Your task to perform on an android device: see creations saved in the google photos Image 0: 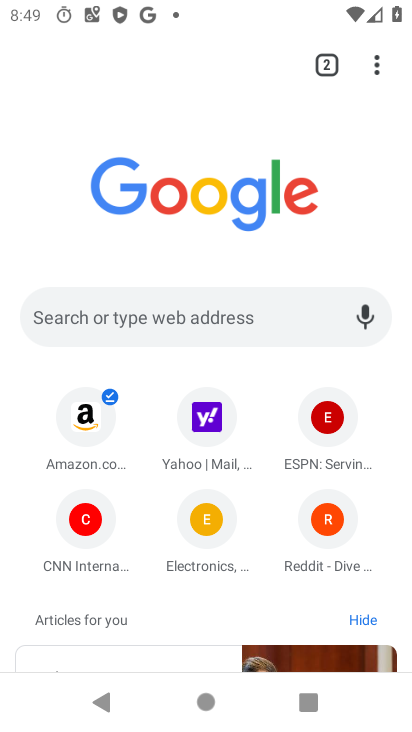
Step 0: press home button
Your task to perform on an android device: see creations saved in the google photos Image 1: 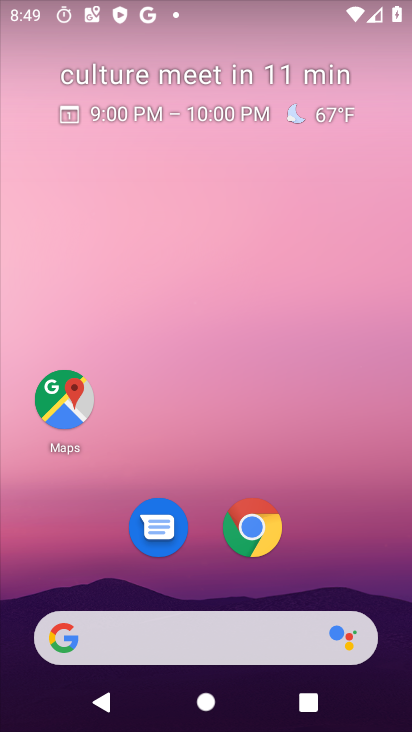
Step 1: drag from (237, 725) to (228, 173)
Your task to perform on an android device: see creations saved in the google photos Image 2: 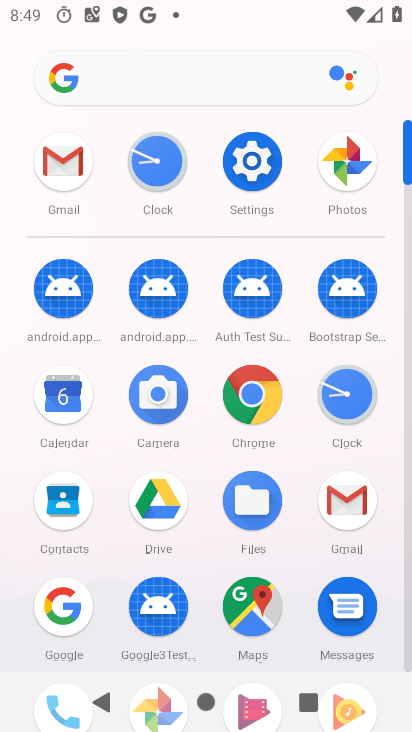
Step 2: drag from (291, 638) to (289, 312)
Your task to perform on an android device: see creations saved in the google photos Image 3: 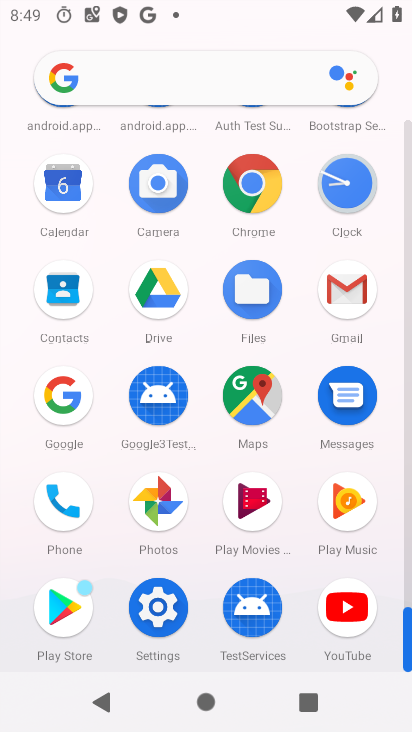
Step 3: click (160, 501)
Your task to perform on an android device: see creations saved in the google photos Image 4: 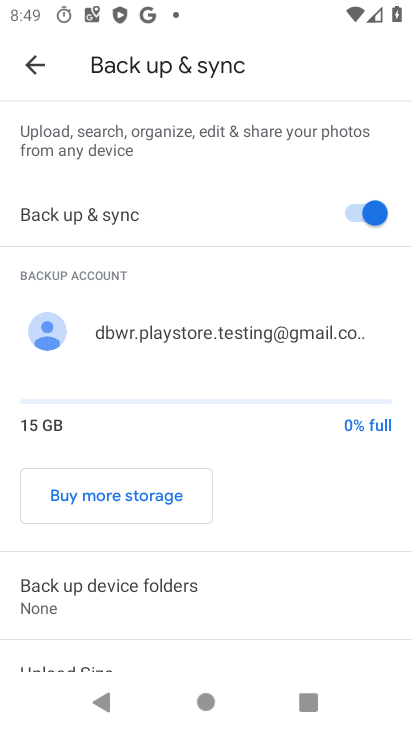
Step 4: click (35, 64)
Your task to perform on an android device: see creations saved in the google photos Image 5: 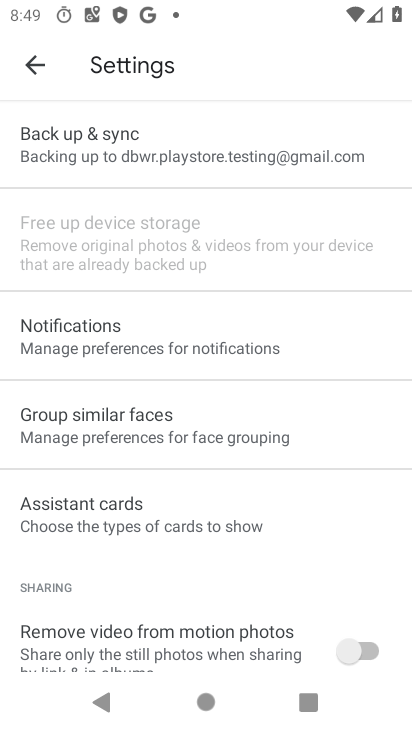
Step 5: click (35, 64)
Your task to perform on an android device: see creations saved in the google photos Image 6: 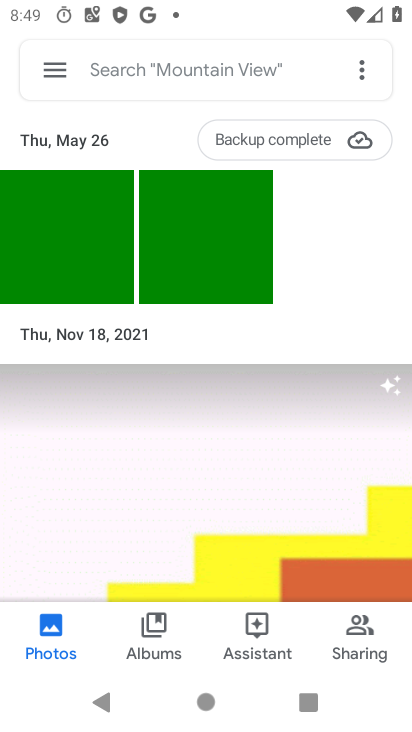
Step 6: click (161, 69)
Your task to perform on an android device: see creations saved in the google photos Image 7: 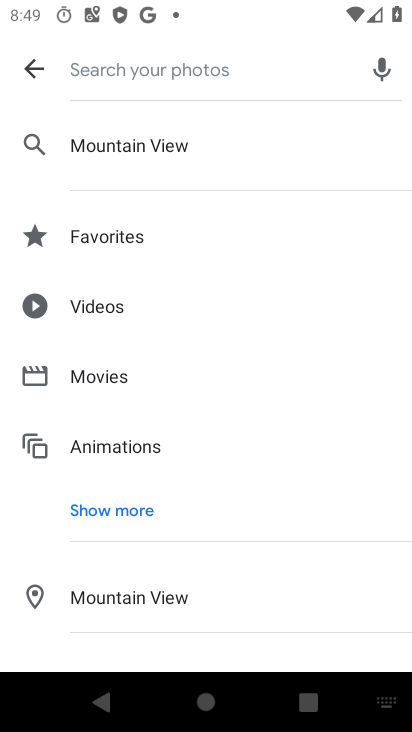
Step 7: drag from (121, 571) to (116, 200)
Your task to perform on an android device: see creations saved in the google photos Image 8: 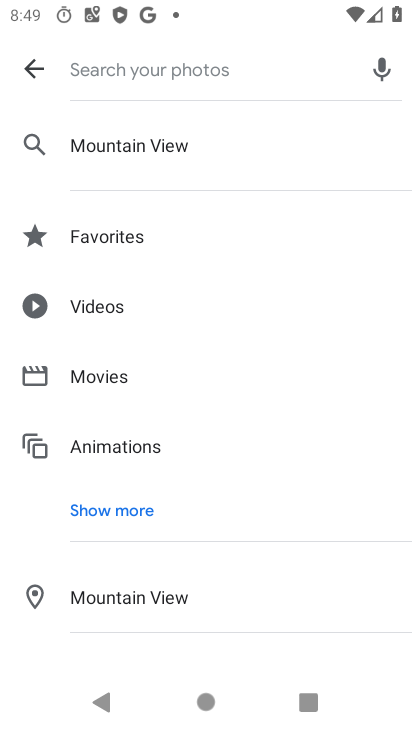
Step 8: click (116, 507)
Your task to perform on an android device: see creations saved in the google photos Image 9: 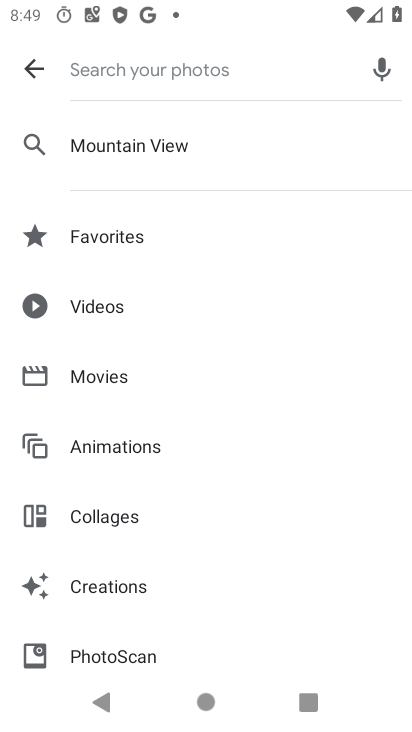
Step 9: click (106, 586)
Your task to perform on an android device: see creations saved in the google photos Image 10: 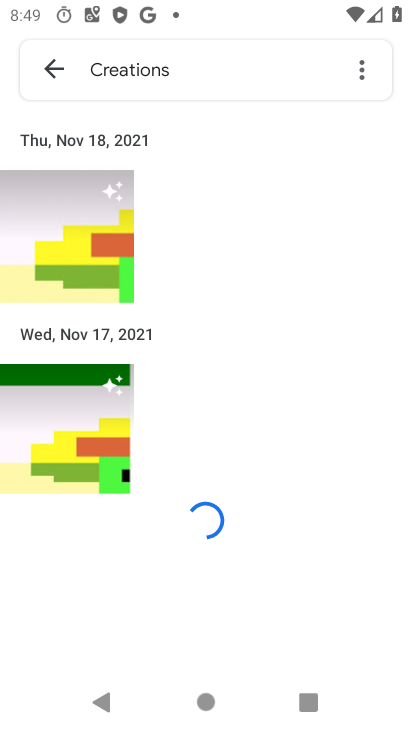
Step 10: task complete